Your task to perform on an android device: Go to privacy settings Image 0: 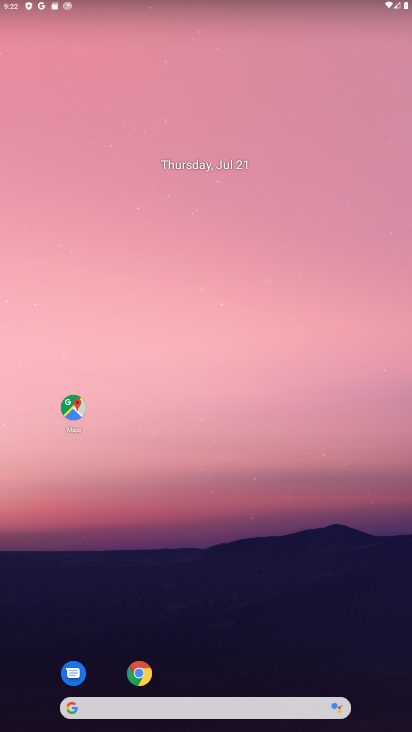
Step 0: press home button
Your task to perform on an android device: Go to privacy settings Image 1: 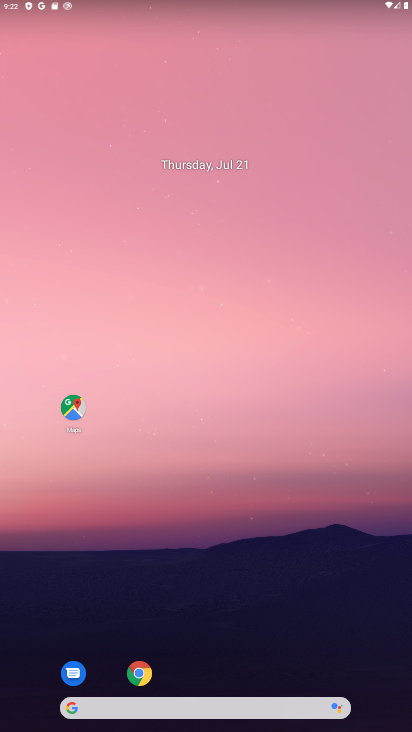
Step 1: drag from (219, 676) to (190, 61)
Your task to perform on an android device: Go to privacy settings Image 2: 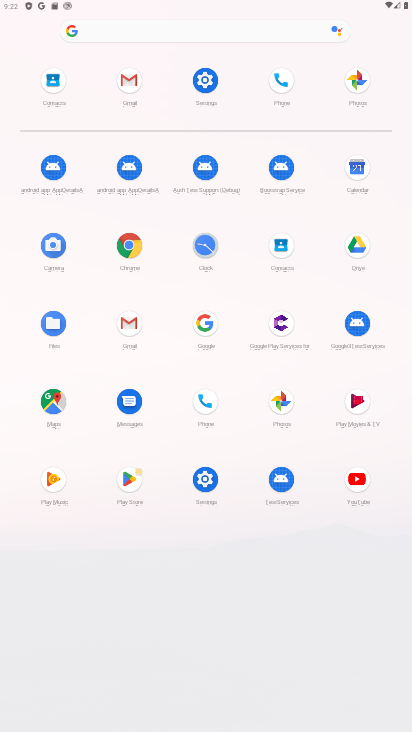
Step 2: click (201, 474)
Your task to perform on an android device: Go to privacy settings Image 3: 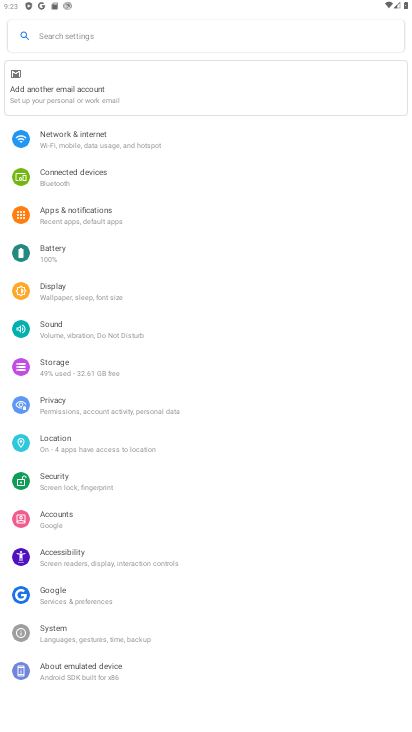
Step 3: click (72, 400)
Your task to perform on an android device: Go to privacy settings Image 4: 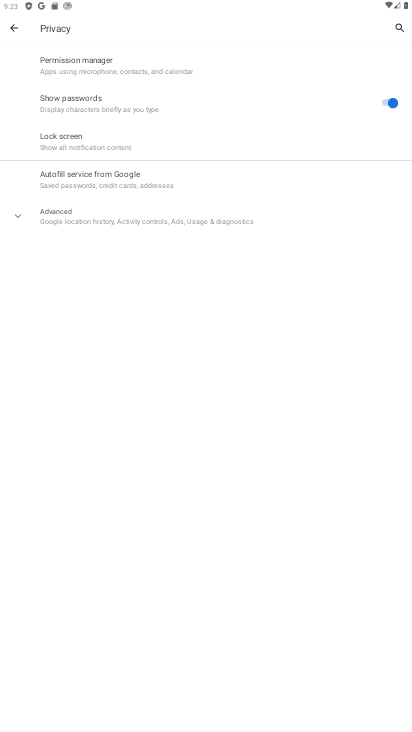
Step 4: click (17, 211)
Your task to perform on an android device: Go to privacy settings Image 5: 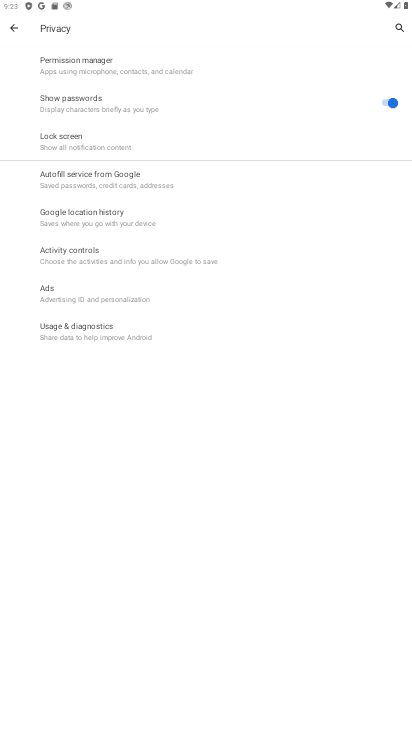
Step 5: task complete